Your task to perform on an android device: Open settings Image 0: 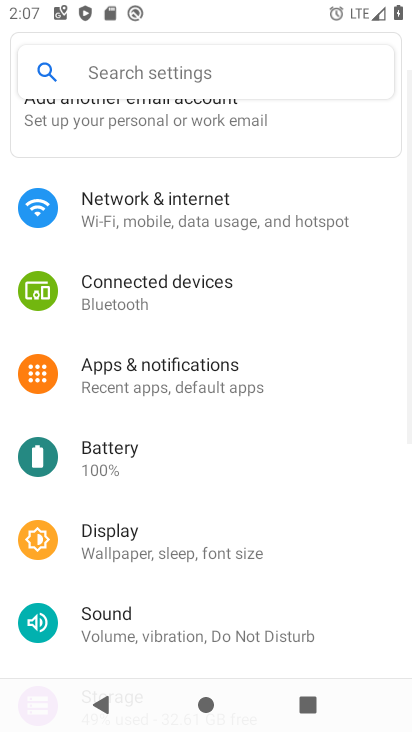
Step 0: press home button
Your task to perform on an android device: Open settings Image 1: 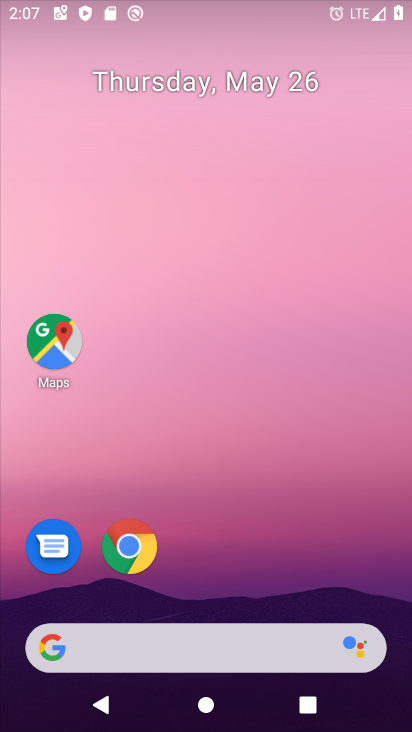
Step 1: drag from (262, 579) to (316, 165)
Your task to perform on an android device: Open settings Image 2: 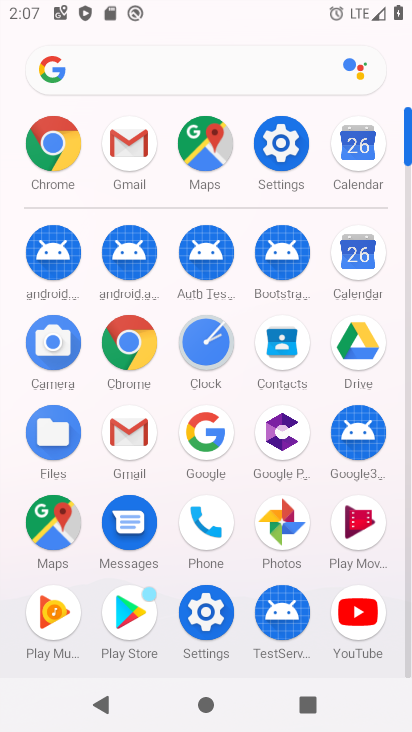
Step 2: click (285, 144)
Your task to perform on an android device: Open settings Image 3: 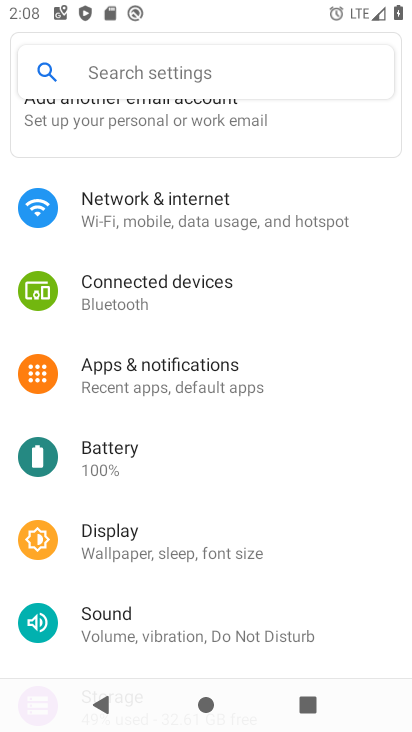
Step 3: task complete